Your task to perform on an android device: Open maps Image 0: 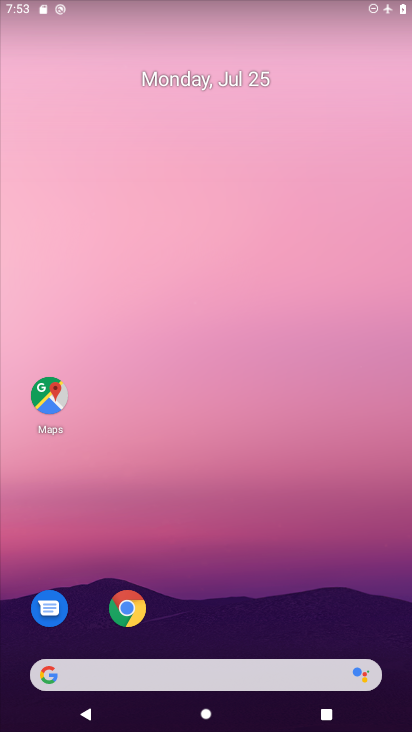
Step 0: drag from (283, 611) to (311, 104)
Your task to perform on an android device: Open maps Image 1: 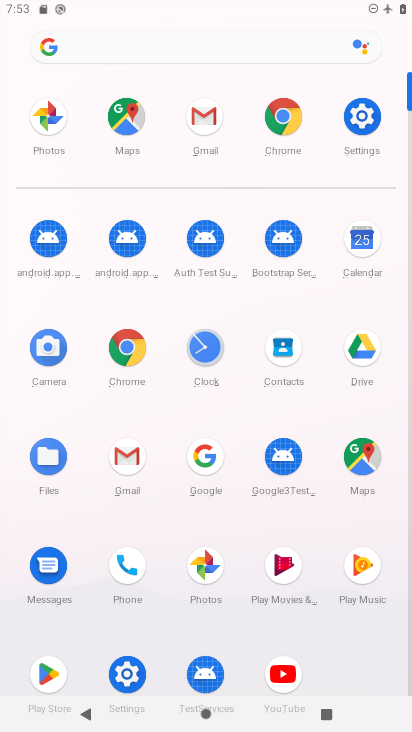
Step 1: click (136, 111)
Your task to perform on an android device: Open maps Image 2: 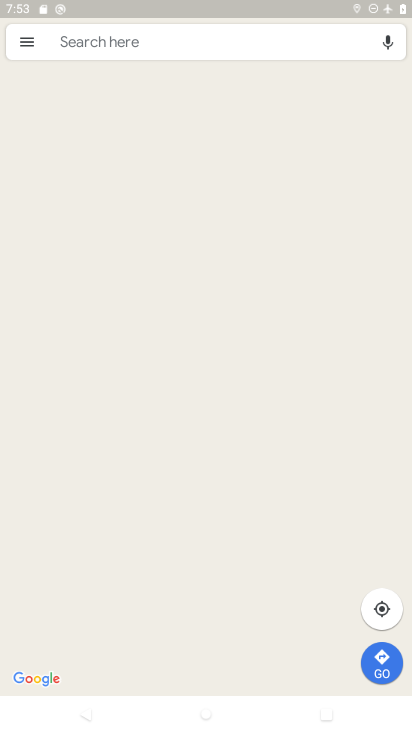
Step 2: task complete